Your task to perform on an android device: Open calendar and show me the second week of next month Image 0: 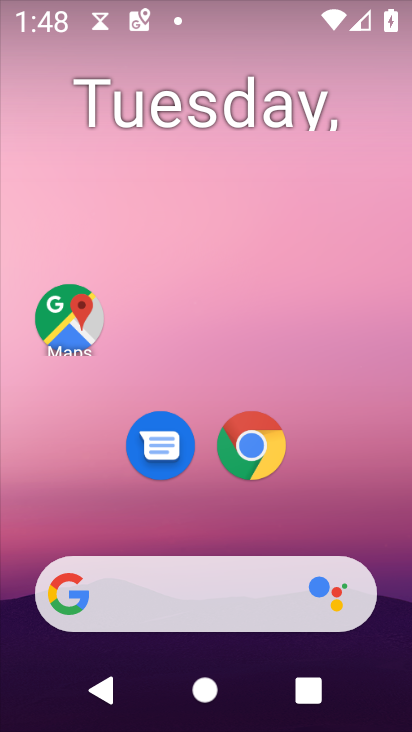
Step 0: drag from (251, 618) to (337, 20)
Your task to perform on an android device: Open calendar and show me the second week of next month Image 1: 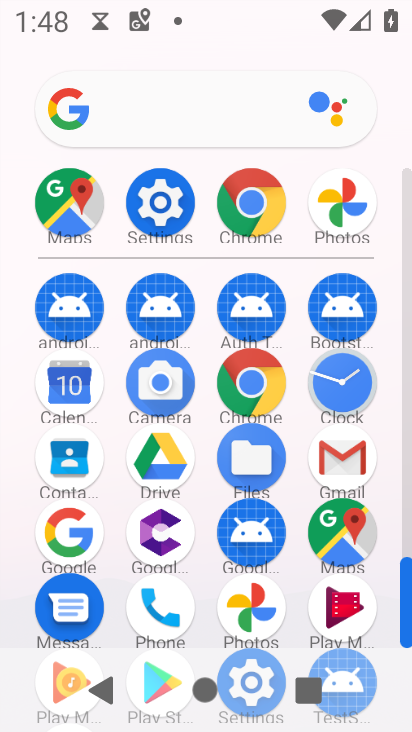
Step 1: click (76, 370)
Your task to perform on an android device: Open calendar and show me the second week of next month Image 2: 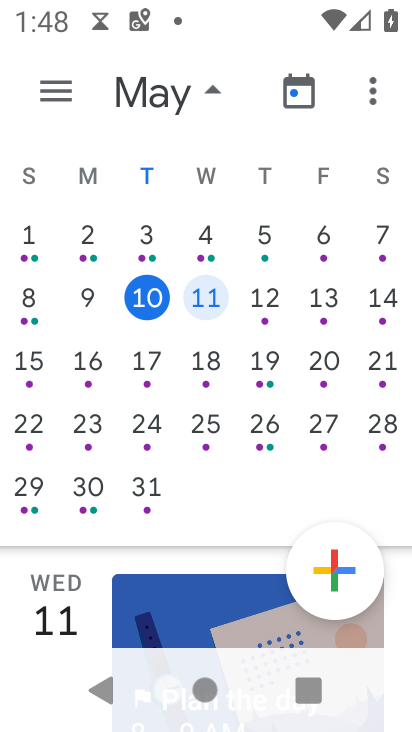
Step 2: drag from (344, 338) to (0, 374)
Your task to perform on an android device: Open calendar and show me the second week of next month Image 3: 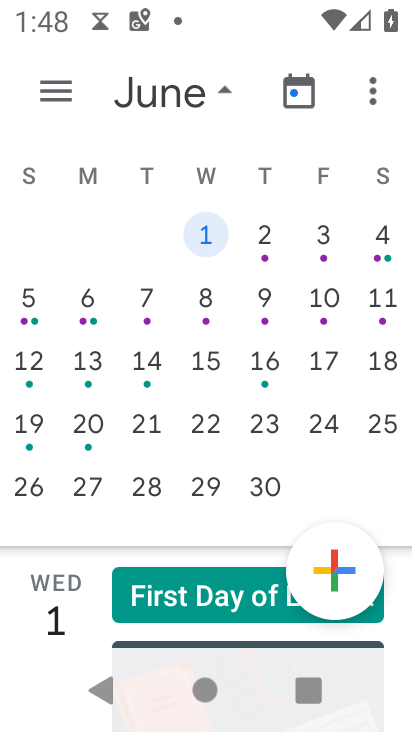
Step 3: click (329, 303)
Your task to perform on an android device: Open calendar and show me the second week of next month Image 4: 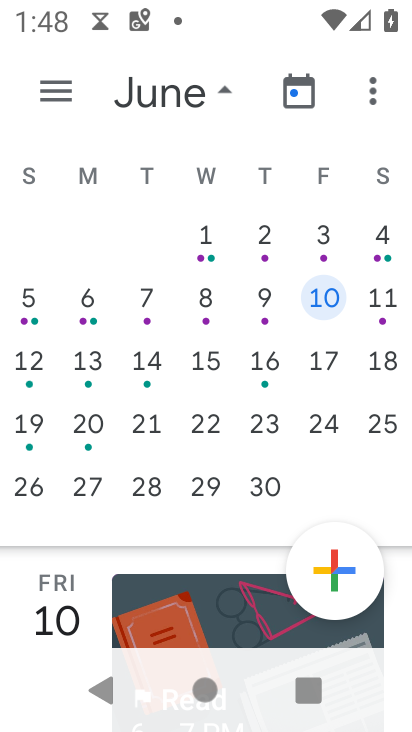
Step 4: task complete